Your task to perform on an android device: toggle pop-ups in chrome Image 0: 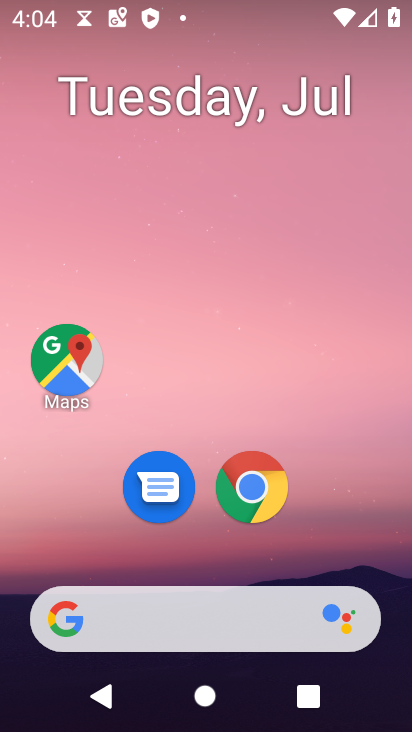
Step 0: click (260, 488)
Your task to perform on an android device: toggle pop-ups in chrome Image 1: 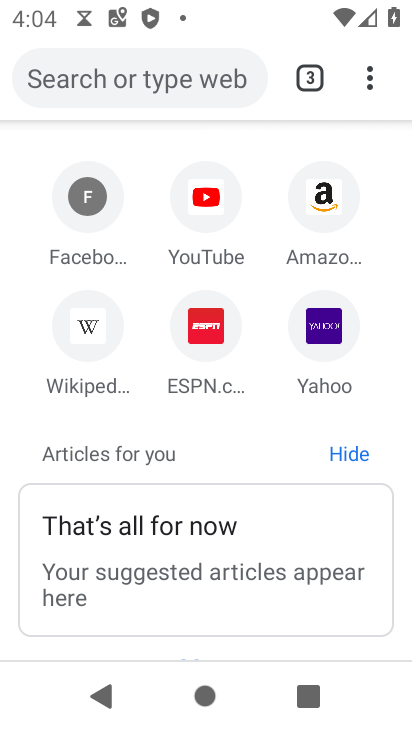
Step 1: drag from (370, 68) to (109, 547)
Your task to perform on an android device: toggle pop-ups in chrome Image 2: 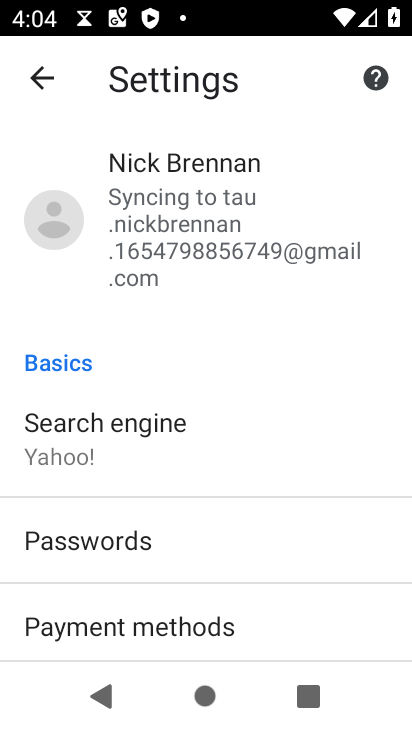
Step 2: drag from (110, 627) to (224, 56)
Your task to perform on an android device: toggle pop-ups in chrome Image 3: 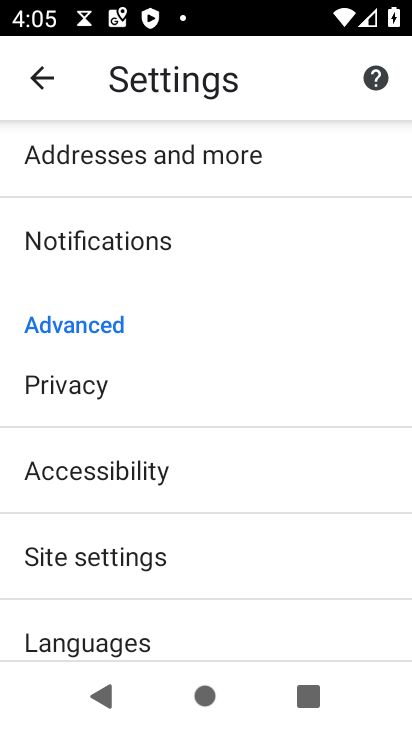
Step 3: click (92, 553)
Your task to perform on an android device: toggle pop-ups in chrome Image 4: 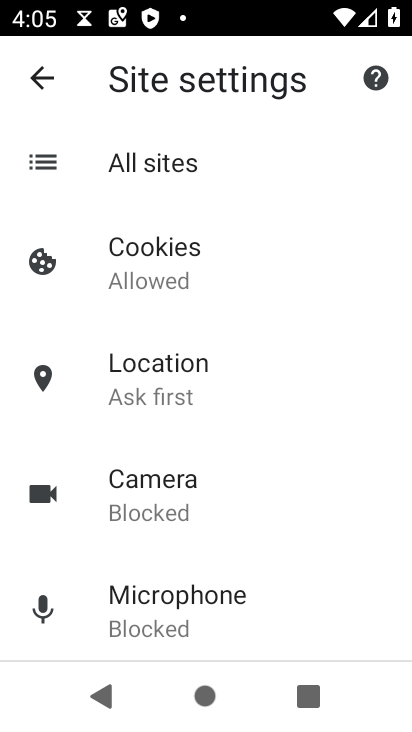
Step 4: drag from (149, 603) to (271, 100)
Your task to perform on an android device: toggle pop-ups in chrome Image 5: 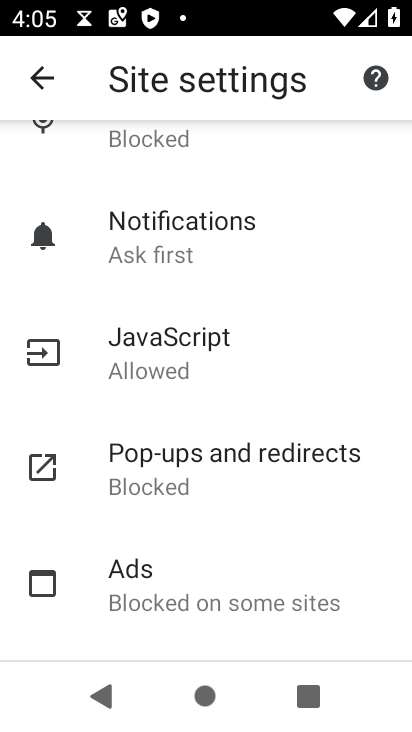
Step 5: click (174, 473)
Your task to perform on an android device: toggle pop-ups in chrome Image 6: 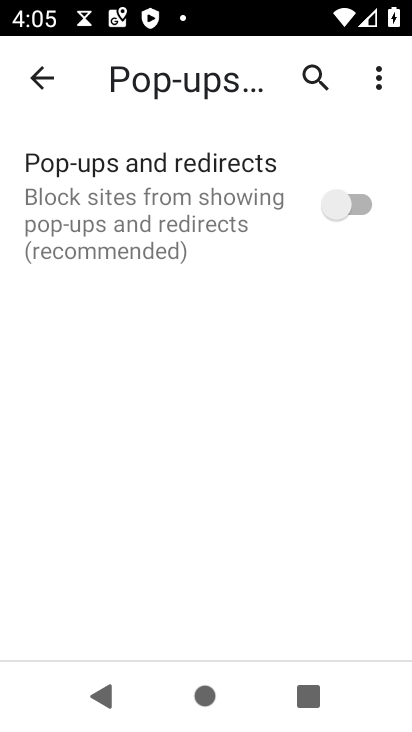
Step 6: click (344, 196)
Your task to perform on an android device: toggle pop-ups in chrome Image 7: 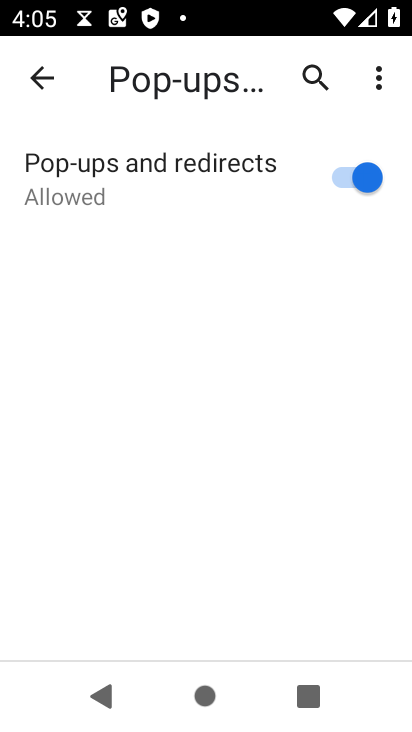
Step 7: task complete